Your task to perform on an android device: change timer sound Image 0: 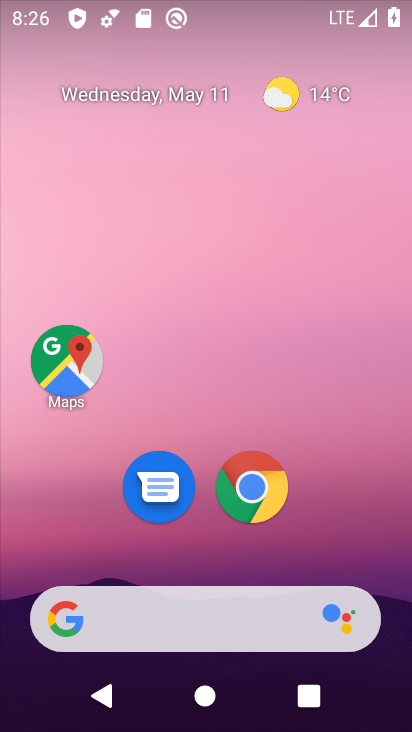
Step 0: drag from (315, 535) to (298, 267)
Your task to perform on an android device: change timer sound Image 1: 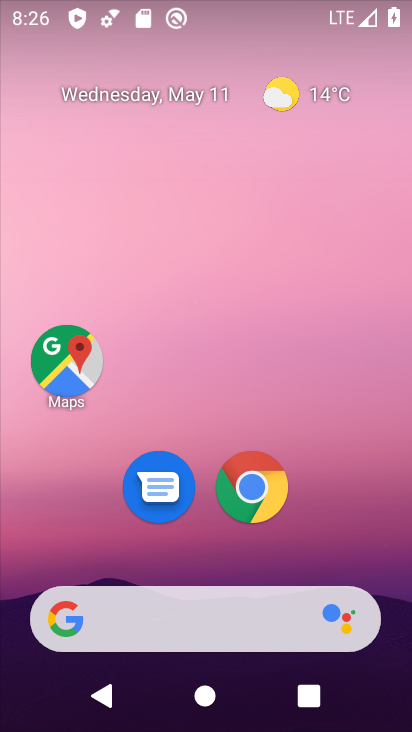
Step 1: drag from (326, 536) to (280, 261)
Your task to perform on an android device: change timer sound Image 2: 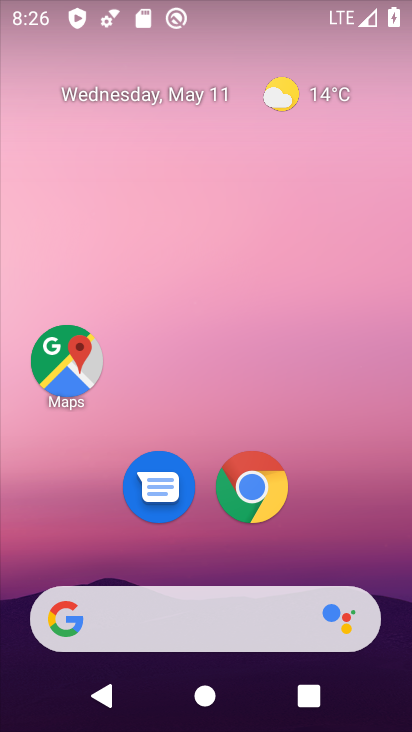
Step 2: drag from (309, 585) to (316, 378)
Your task to perform on an android device: change timer sound Image 3: 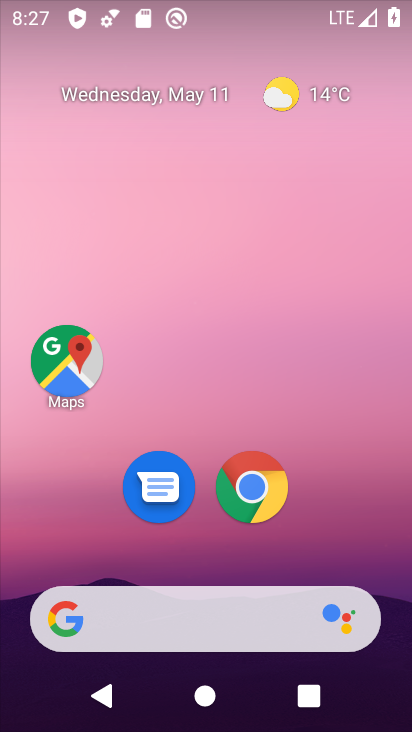
Step 3: drag from (305, 526) to (303, 225)
Your task to perform on an android device: change timer sound Image 4: 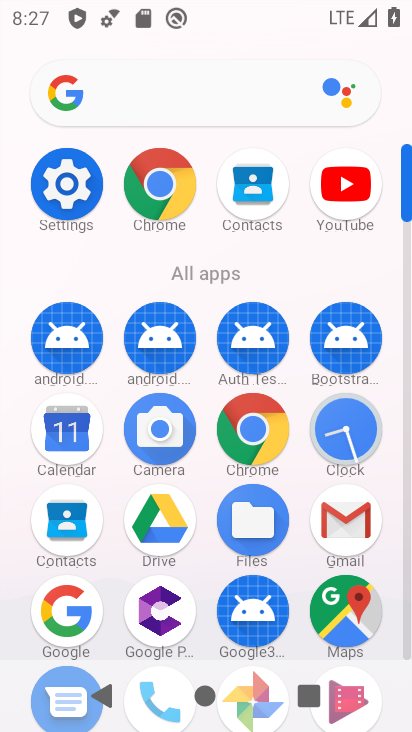
Step 4: click (355, 450)
Your task to perform on an android device: change timer sound Image 5: 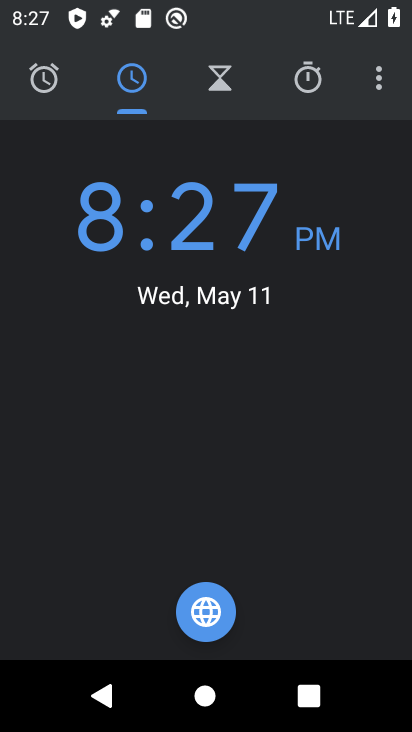
Step 5: click (381, 77)
Your task to perform on an android device: change timer sound Image 6: 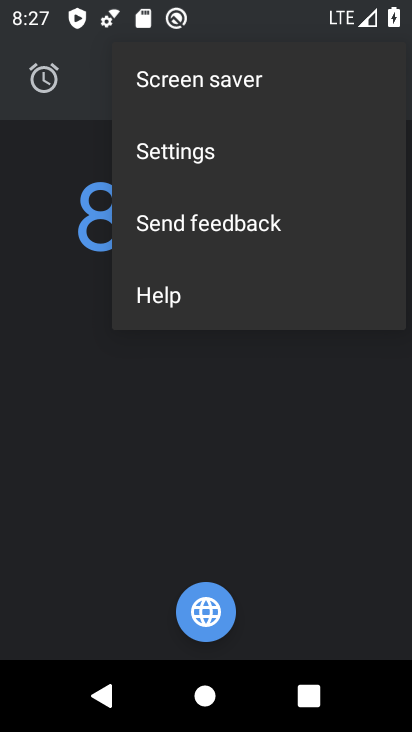
Step 6: click (172, 169)
Your task to perform on an android device: change timer sound Image 7: 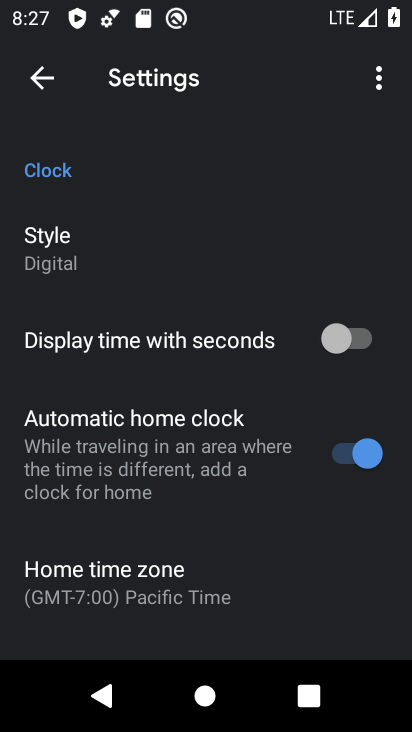
Step 7: drag from (105, 552) to (157, 289)
Your task to perform on an android device: change timer sound Image 8: 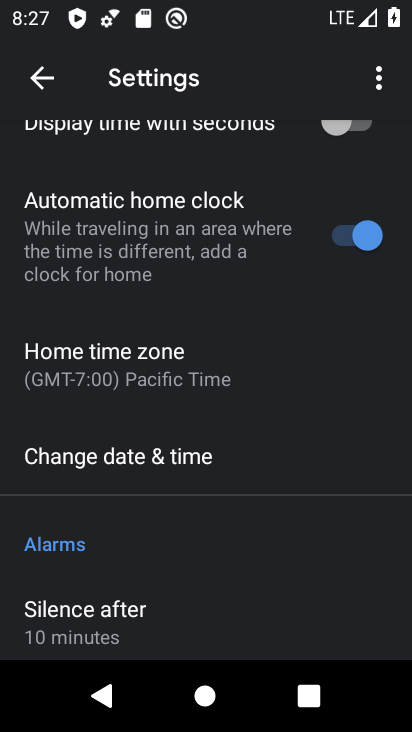
Step 8: drag from (127, 606) to (174, 288)
Your task to perform on an android device: change timer sound Image 9: 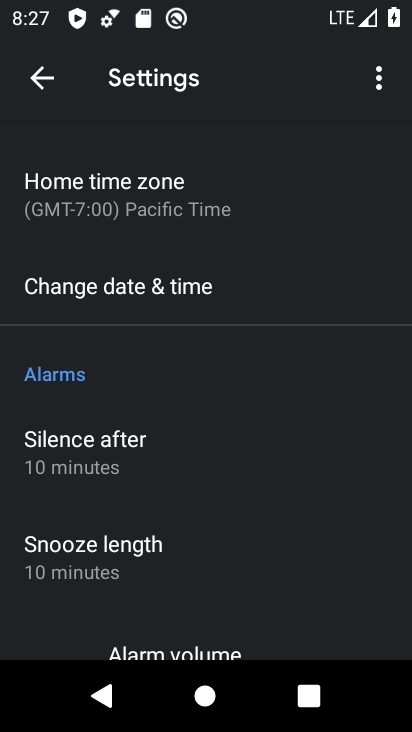
Step 9: drag from (149, 541) to (182, 256)
Your task to perform on an android device: change timer sound Image 10: 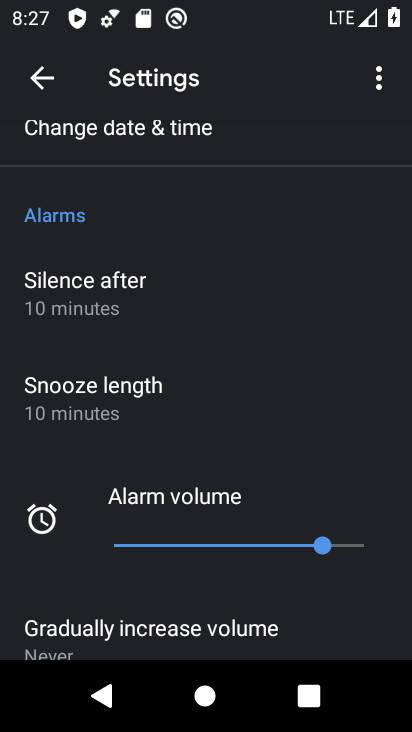
Step 10: drag from (146, 568) to (175, 297)
Your task to perform on an android device: change timer sound Image 11: 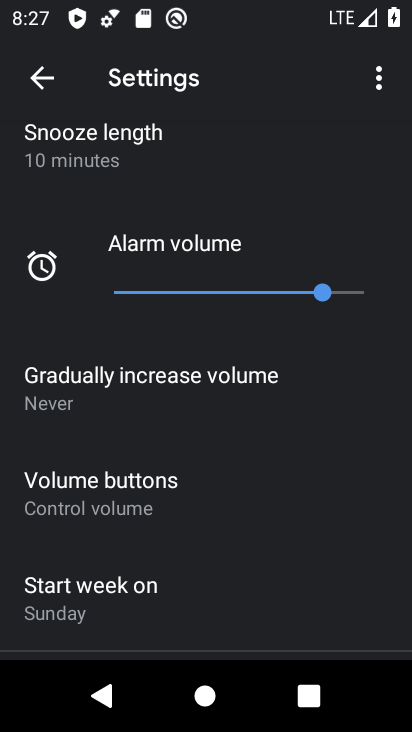
Step 11: drag from (129, 603) to (195, 331)
Your task to perform on an android device: change timer sound Image 12: 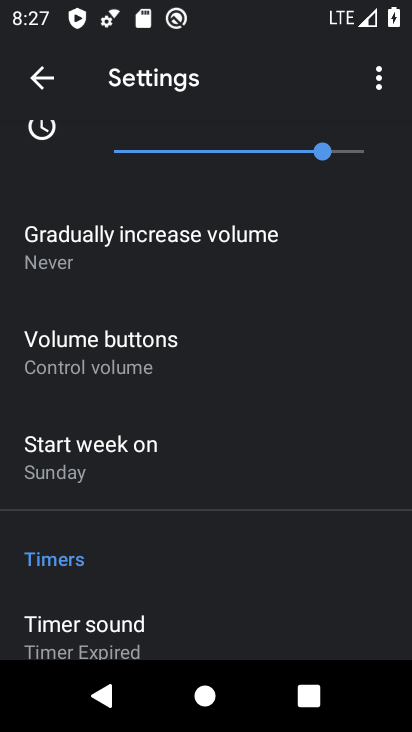
Step 12: drag from (167, 562) to (184, 331)
Your task to perform on an android device: change timer sound Image 13: 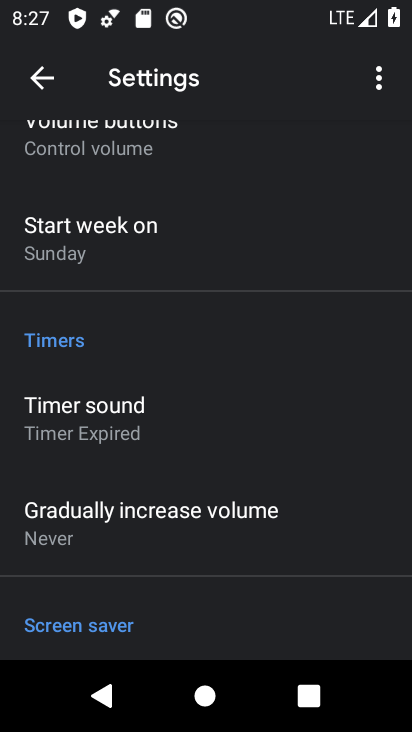
Step 13: click (125, 438)
Your task to perform on an android device: change timer sound Image 14: 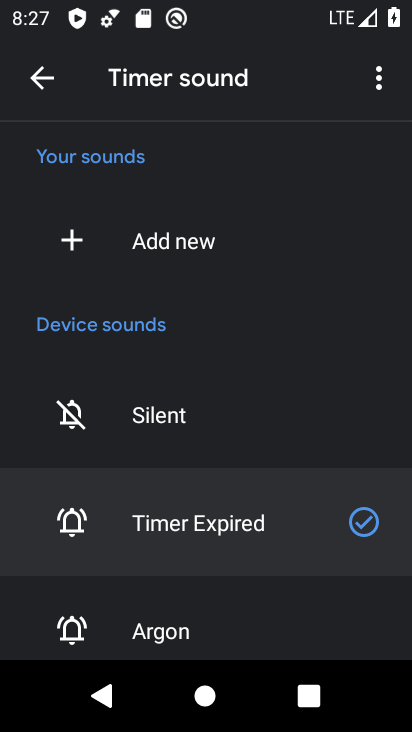
Step 14: click (158, 633)
Your task to perform on an android device: change timer sound Image 15: 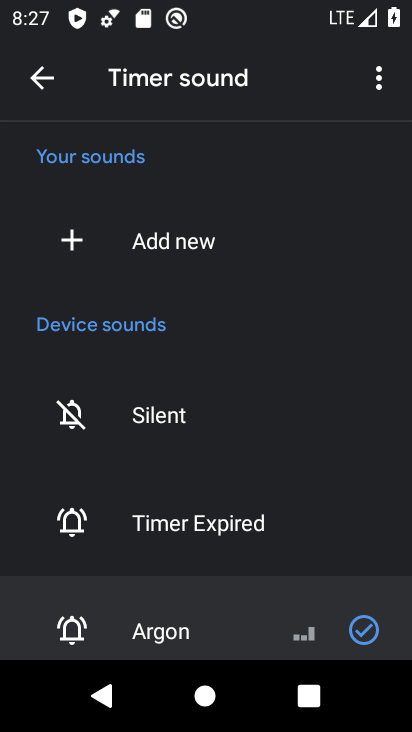
Step 15: task complete